Your task to perform on an android device: Is it going to rain this weekend? Image 0: 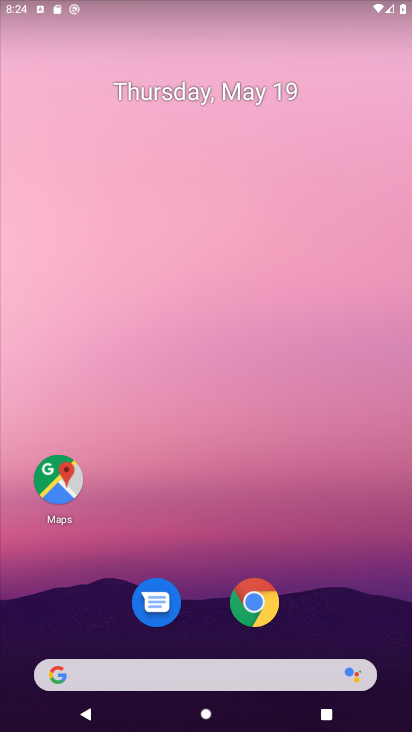
Step 0: click (147, 132)
Your task to perform on an android device: Is it going to rain this weekend? Image 1: 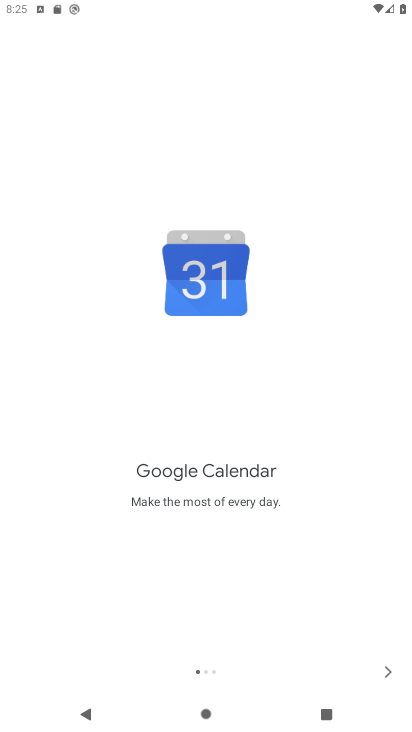
Step 1: click (379, 666)
Your task to perform on an android device: Is it going to rain this weekend? Image 2: 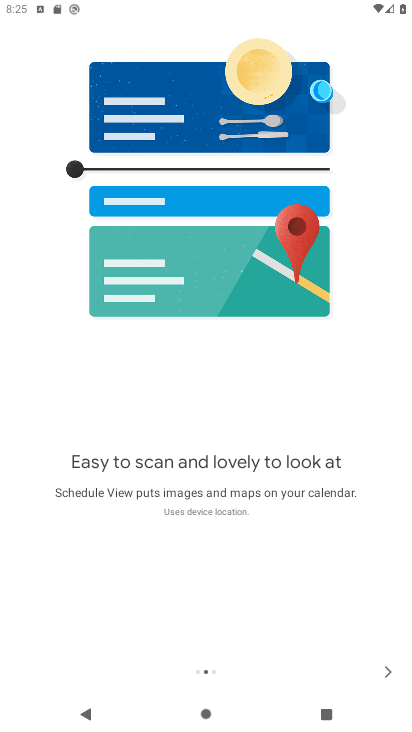
Step 2: click (379, 666)
Your task to perform on an android device: Is it going to rain this weekend? Image 3: 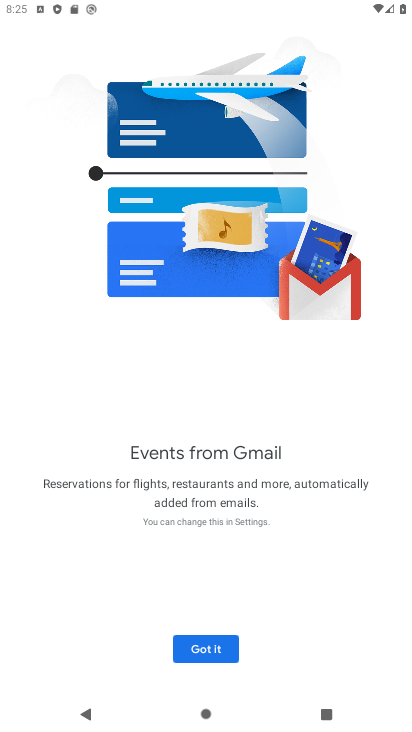
Step 3: click (199, 646)
Your task to perform on an android device: Is it going to rain this weekend? Image 4: 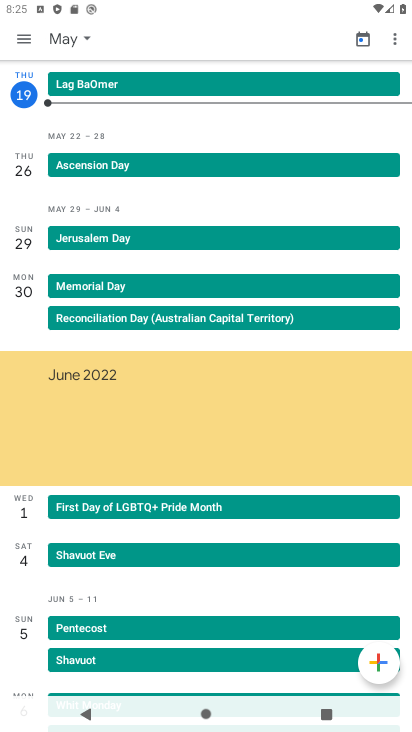
Step 4: press home button
Your task to perform on an android device: Is it going to rain this weekend? Image 5: 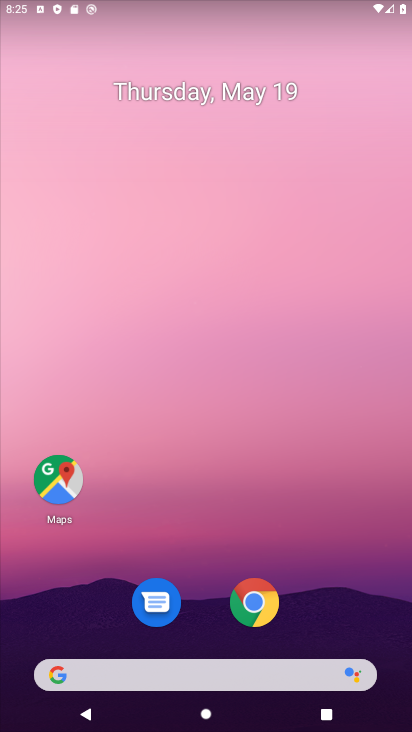
Step 5: drag from (396, 685) to (367, 163)
Your task to perform on an android device: Is it going to rain this weekend? Image 6: 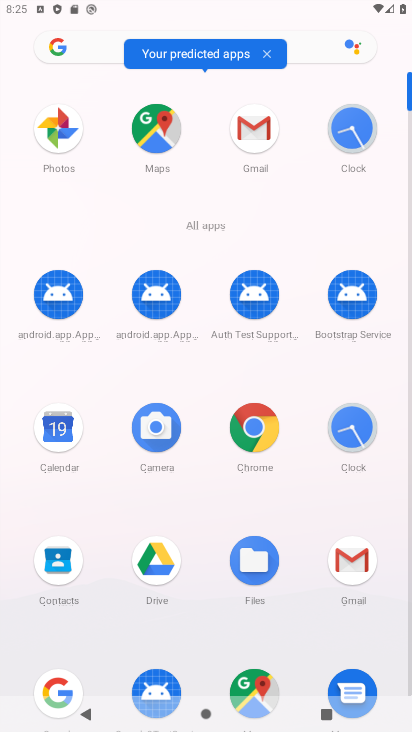
Step 6: click (70, 687)
Your task to perform on an android device: Is it going to rain this weekend? Image 7: 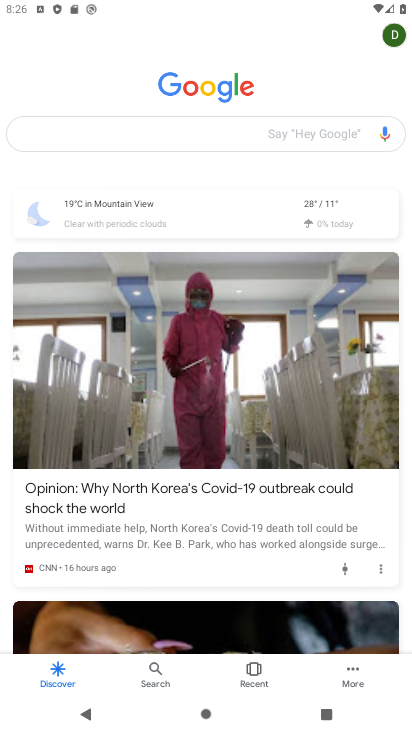
Step 7: click (332, 215)
Your task to perform on an android device: Is it going to rain this weekend? Image 8: 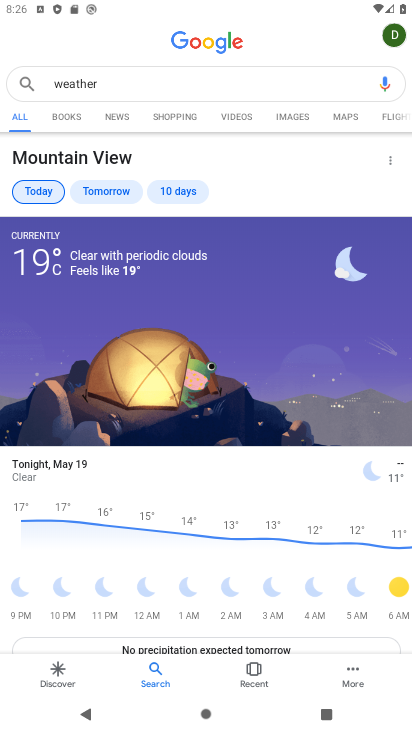
Step 8: task complete